Your task to perform on an android device: toggle airplane mode Image 0: 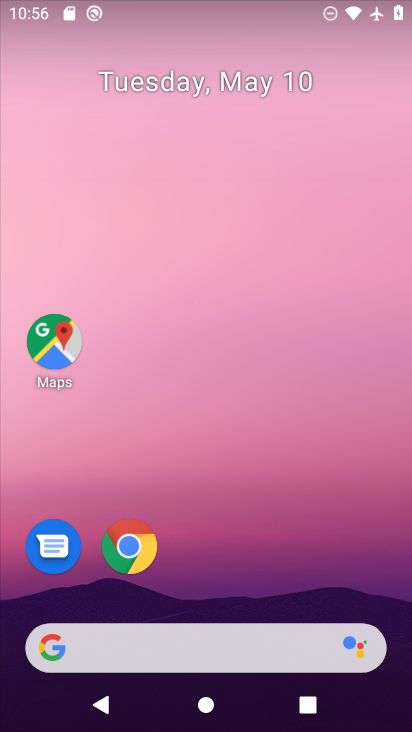
Step 0: drag from (207, 13) to (148, 629)
Your task to perform on an android device: toggle airplane mode Image 1: 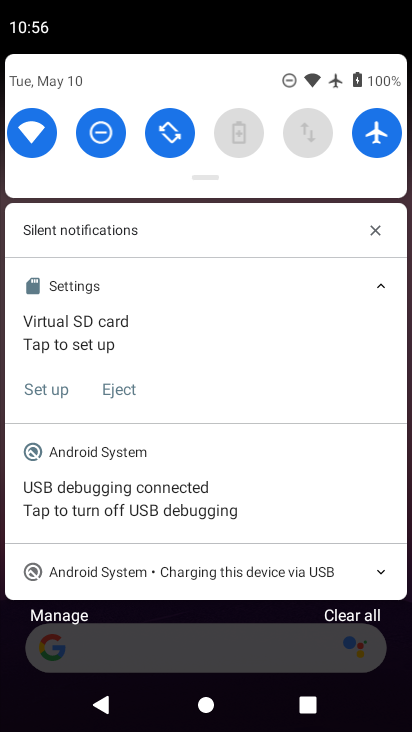
Step 1: click (388, 128)
Your task to perform on an android device: toggle airplane mode Image 2: 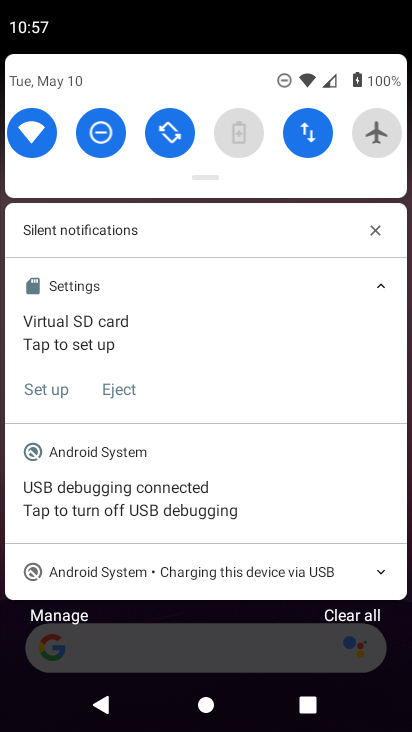
Step 2: task complete